Your task to perform on an android device: search for starred emails in the gmail app Image 0: 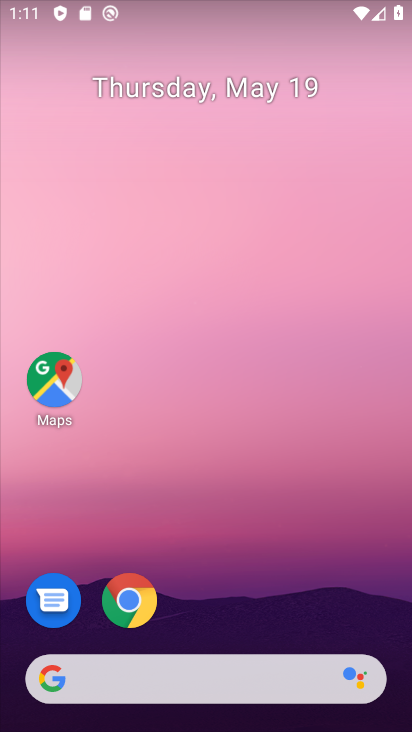
Step 0: drag from (264, 524) to (251, 43)
Your task to perform on an android device: search for starred emails in the gmail app Image 1: 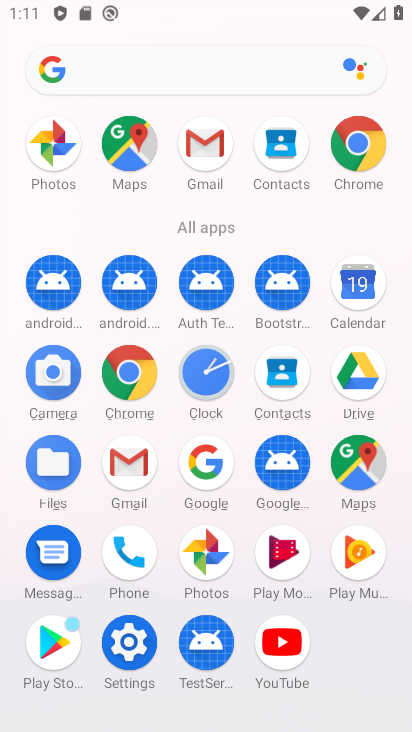
Step 1: click (131, 449)
Your task to perform on an android device: search for starred emails in the gmail app Image 2: 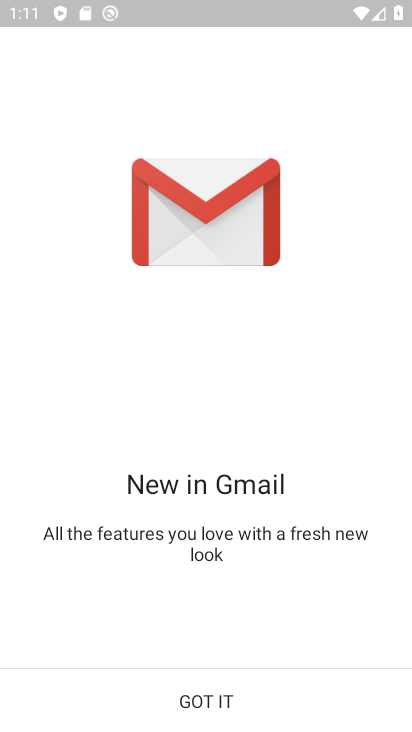
Step 2: click (199, 682)
Your task to perform on an android device: search for starred emails in the gmail app Image 3: 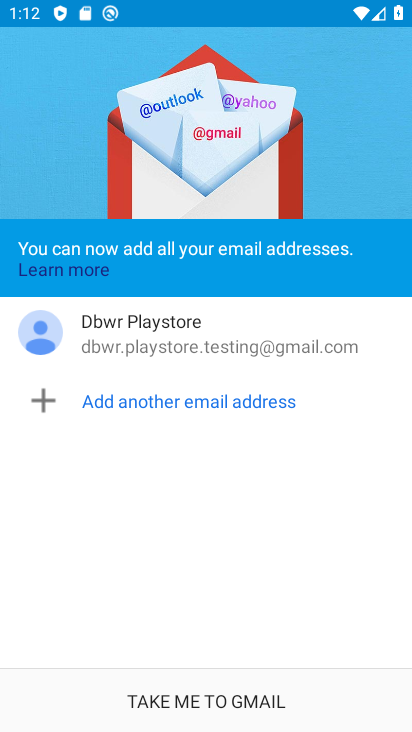
Step 3: click (158, 694)
Your task to perform on an android device: search for starred emails in the gmail app Image 4: 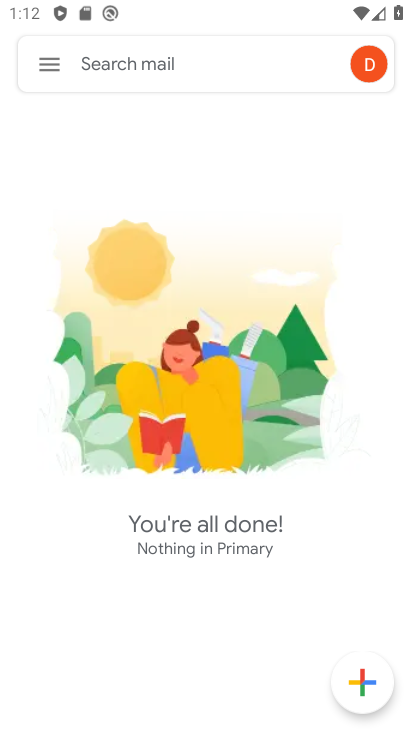
Step 4: click (36, 70)
Your task to perform on an android device: search for starred emails in the gmail app Image 5: 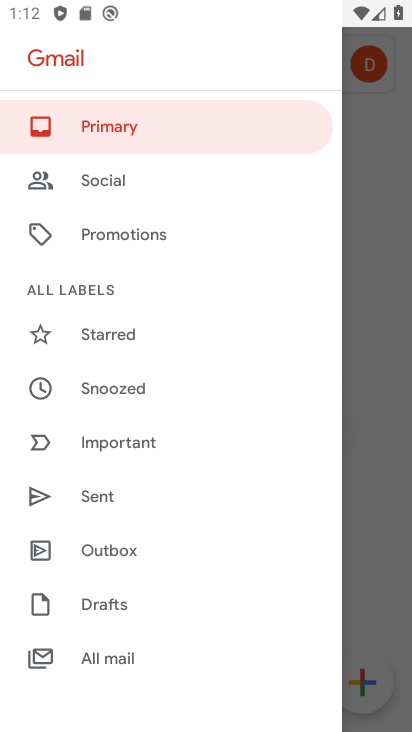
Step 5: click (113, 331)
Your task to perform on an android device: search for starred emails in the gmail app Image 6: 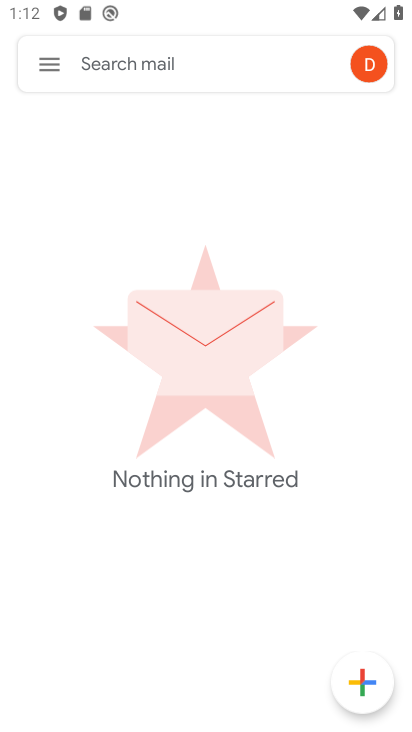
Step 6: task complete